Your task to perform on an android device: Open the stopwatch Image 0: 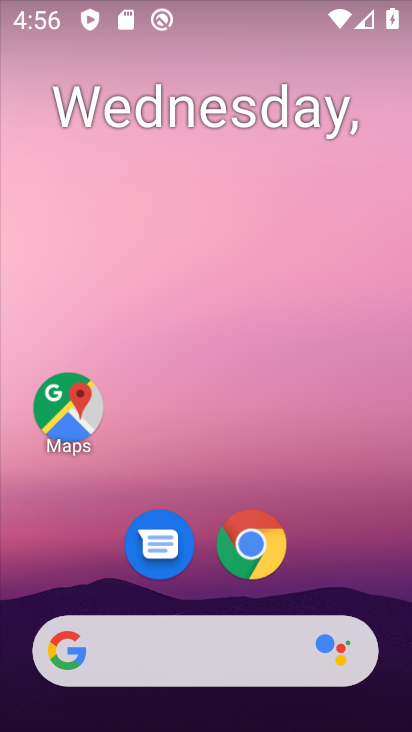
Step 0: drag from (150, 593) to (193, 191)
Your task to perform on an android device: Open the stopwatch Image 1: 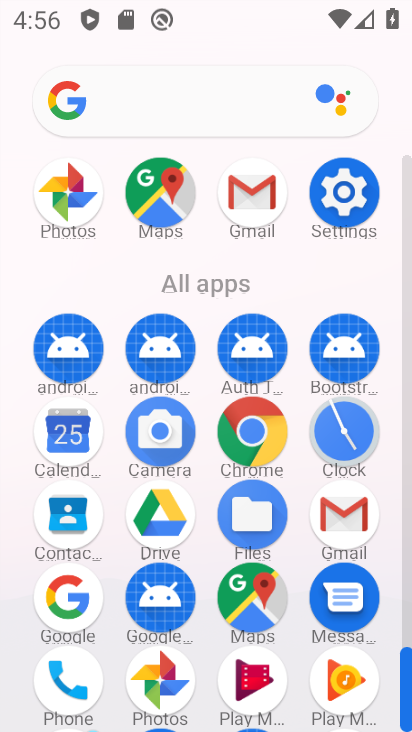
Step 1: click (347, 433)
Your task to perform on an android device: Open the stopwatch Image 2: 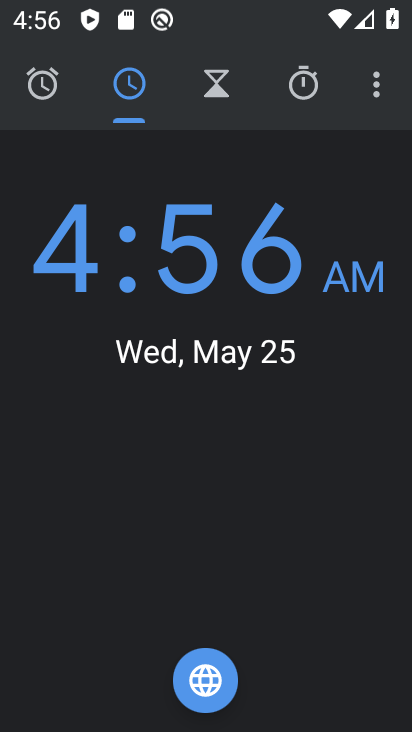
Step 2: click (318, 98)
Your task to perform on an android device: Open the stopwatch Image 3: 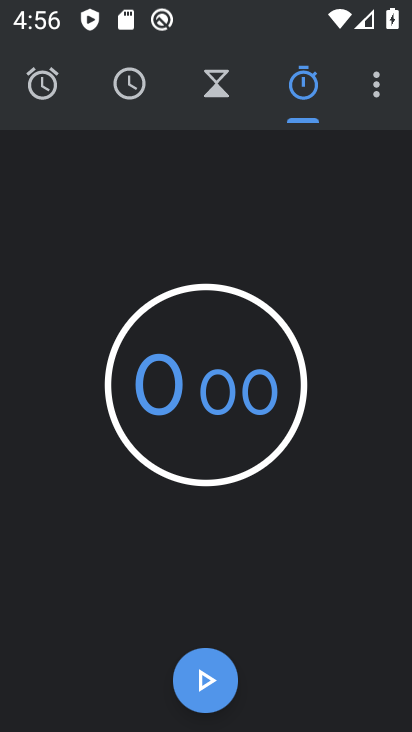
Step 3: click (205, 673)
Your task to perform on an android device: Open the stopwatch Image 4: 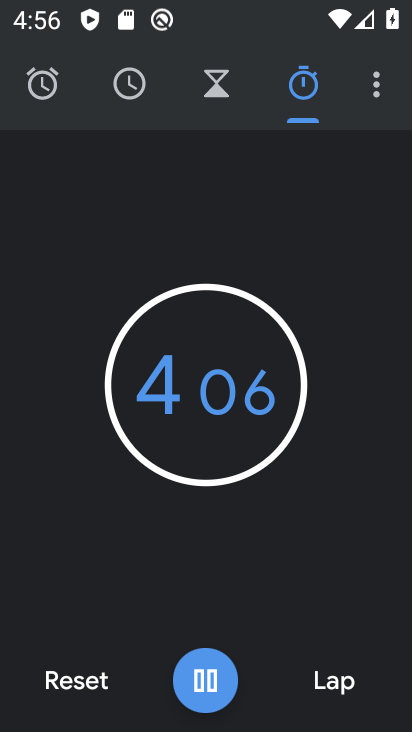
Step 4: click (210, 677)
Your task to perform on an android device: Open the stopwatch Image 5: 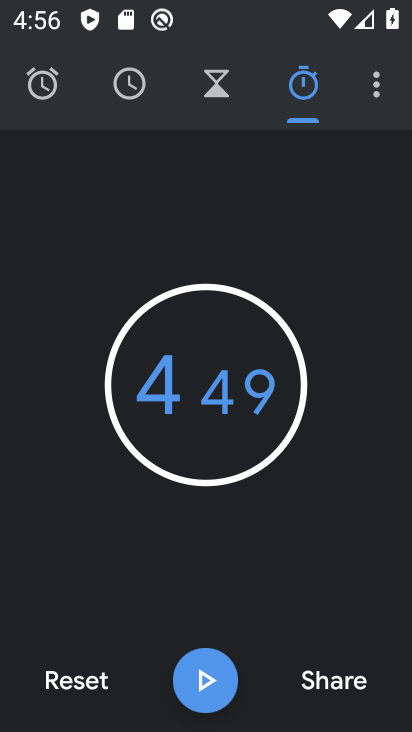
Step 5: task complete